Your task to perform on an android device: open a new tab in the chrome app Image 0: 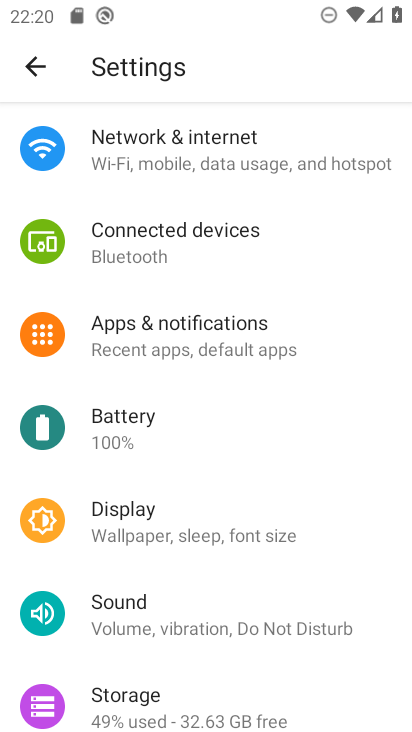
Step 0: press home button
Your task to perform on an android device: open a new tab in the chrome app Image 1: 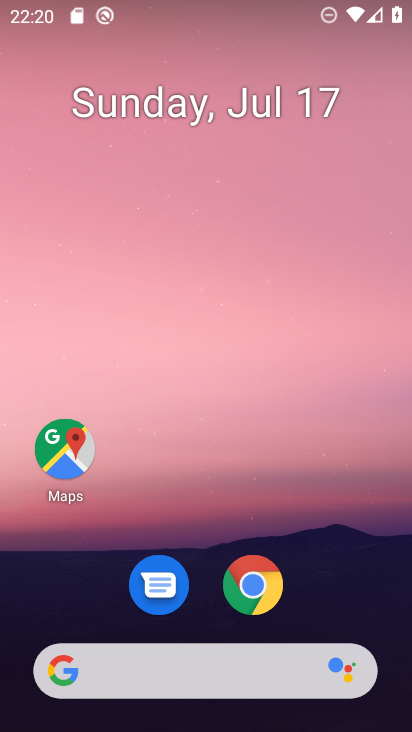
Step 1: click (251, 579)
Your task to perform on an android device: open a new tab in the chrome app Image 2: 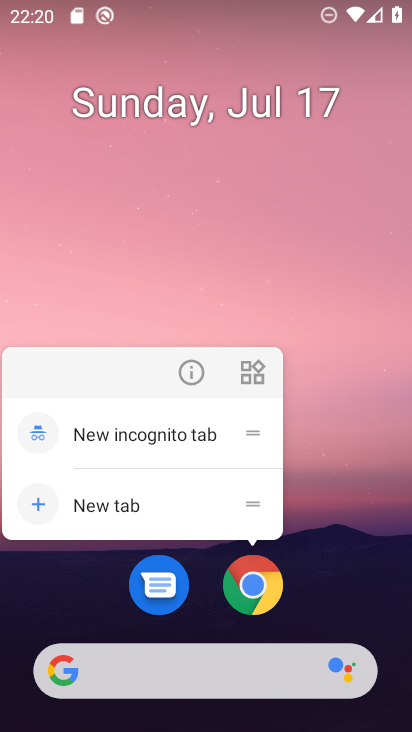
Step 2: click (251, 590)
Your task to perform on an android device: open a new tab in the chrome app Image 3: 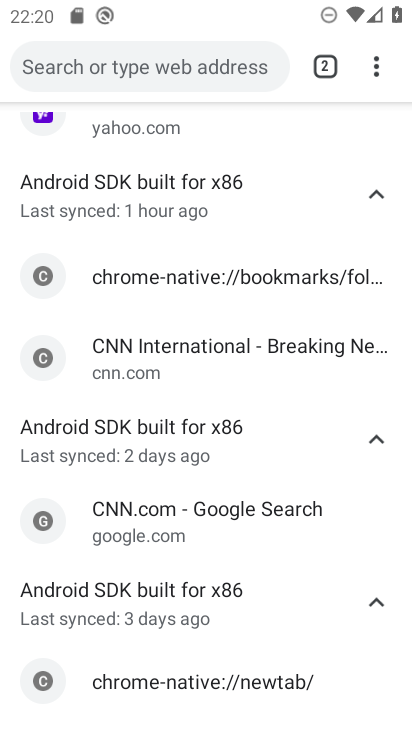
Step 3: task complete